Your task to perform on an android device: Play the last video I watched on Youtube Image 0: 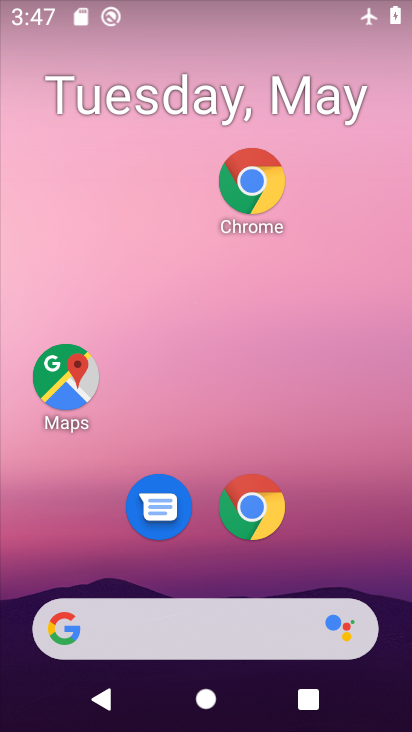
Step 0: drag from (376, 510) to (291, 20)
Your task to perform on an android device: Play the last video I watched on Youtube Image 1: 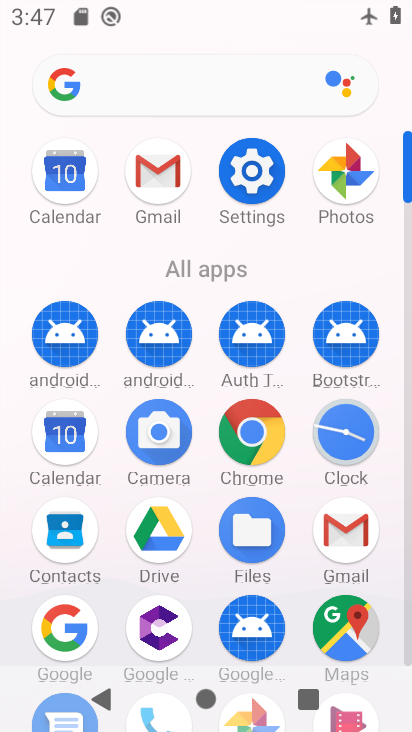
Step 1: drag from (405, 626) to (380, 199)
Your task to perform on an android device: Play the last video I watched on Youtube Image 2: 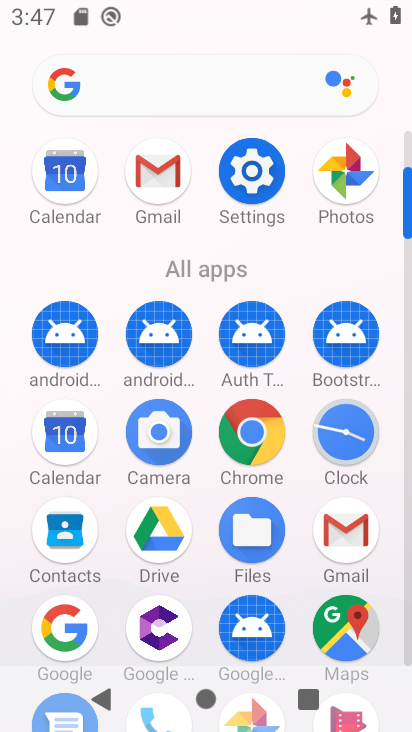
Step 2: drag from (389, 614) to (360, 213)
Your task to perform on an android device: Play the last video I watched on Youtube Image 3: 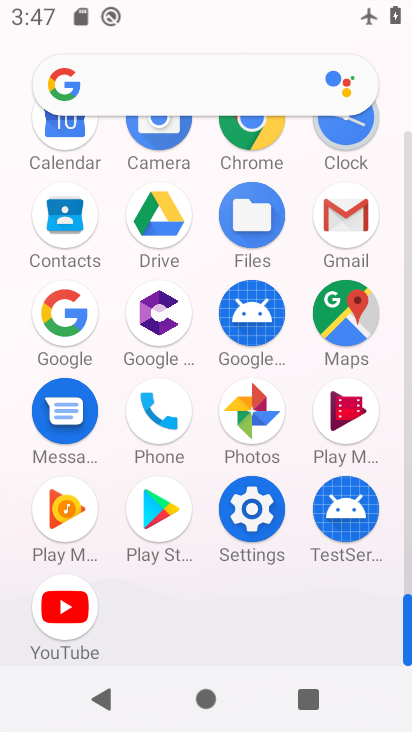
Step 3: click (70, 634)
Your task to perform on an android device: Play the last video I watched on Youtube Image 4: 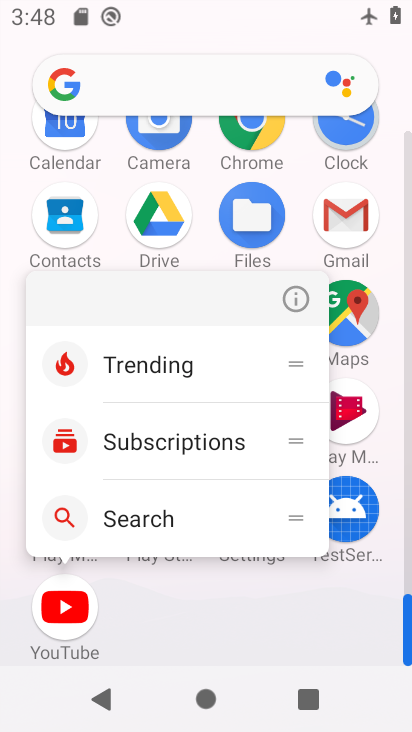
Step 4: click (61, 612)
Your task to perform on an android device: Play the last video I watched on Youtube Image 5: 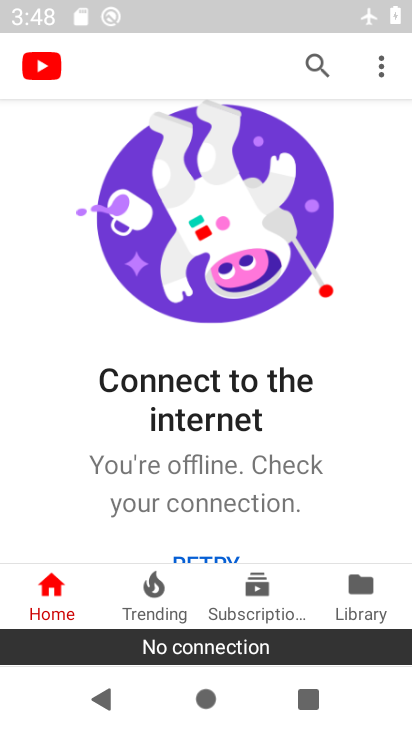
Step 5: click (365, 614)
Your task to perform on an android device: Play the last video I watched on Youtube Image 6: 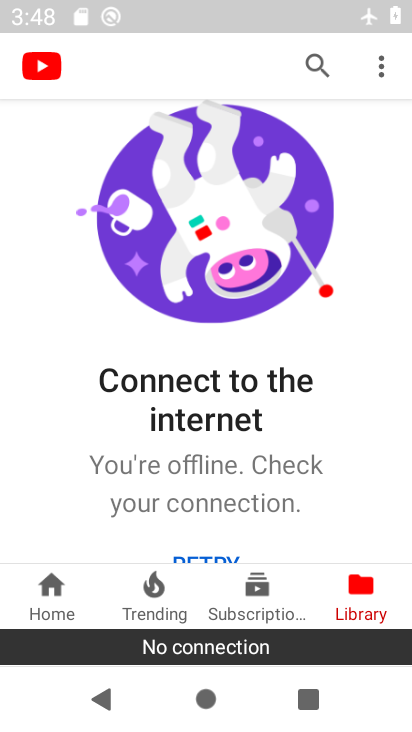
Step 6: click (365, 613)
Your task to perform on an android device: Play the last video I watched on Youtube Image 7: 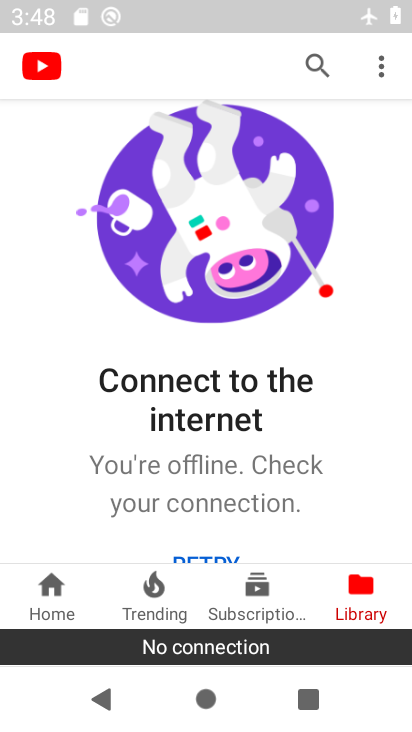
Step 7: task complete